Your task to perform on an android device: toggle airplane mode Image 0: 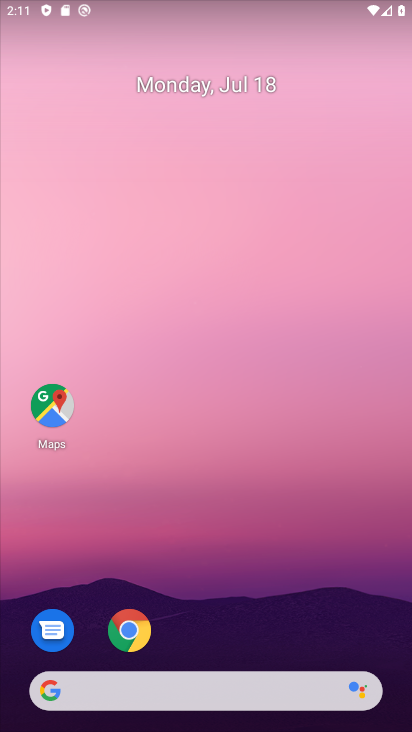
Step 0: press home button
Your task to perform on an android device: toggle airplane mode Image 1: 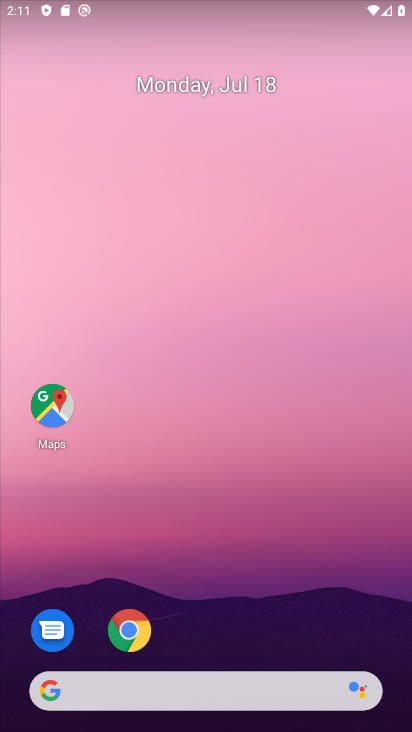
Step 1: drag from (211, 11) to (234, 459)
Your task to perform on an android device: toggle airplane mode Image 2: 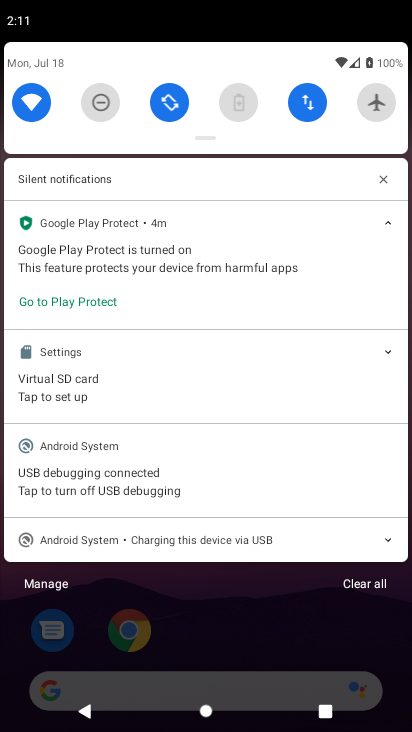
Step 2: click (375, 103)
Your task to perform on an android device: toggle airplane mode Image 3: 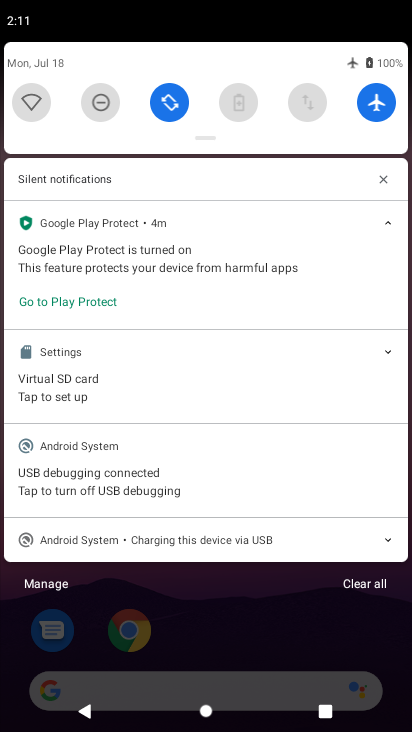
Step 3: task complete